Your task to perform on an android device: add a contact Image 0: 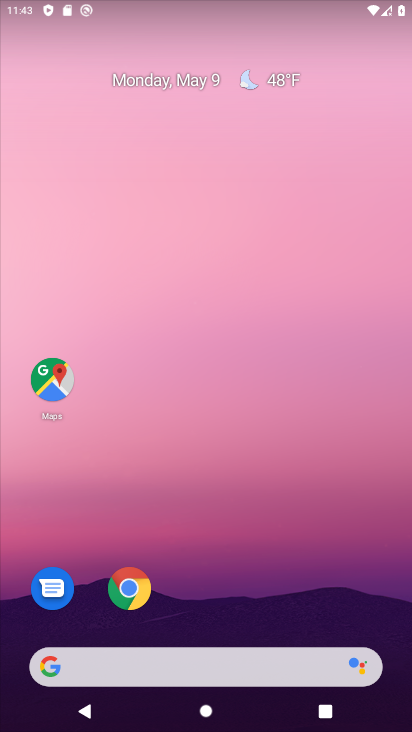
Step 0: drag from (206, 593) to (272, 296)
Your task to perform on an android device: add a contact Image 1: 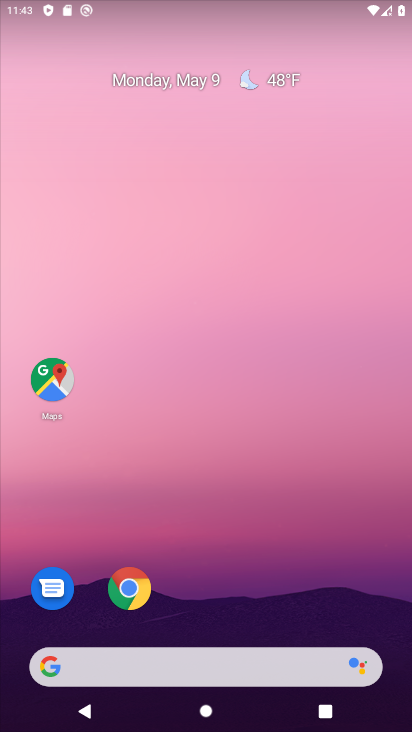
Step 1: drag from (224, 509) to (279, 228)
Your task to perform on an android device: add a contact Image 2: 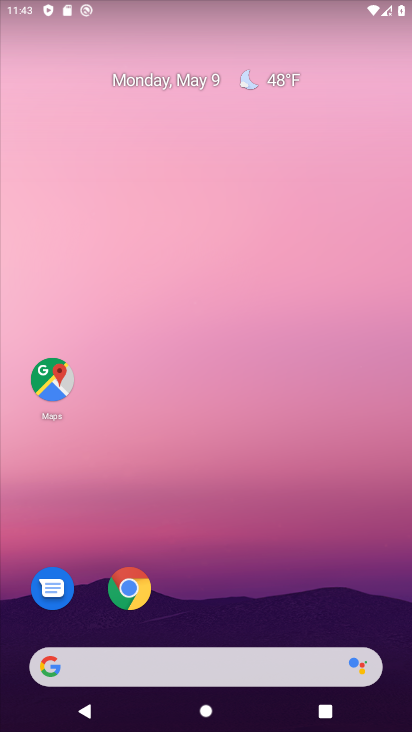
Step 2: drag from (245, 393) to (340, 4)
Your task to perform on an android device: add a contact Image 3: 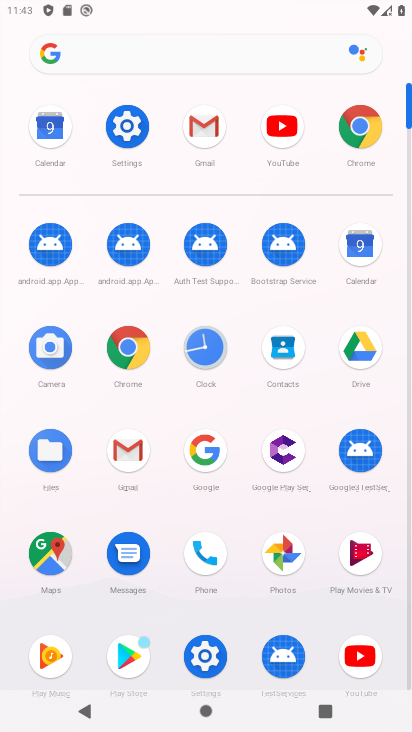
Step 3: click (204, 552)
Your task to perform on an android device: add a contact Image 4: 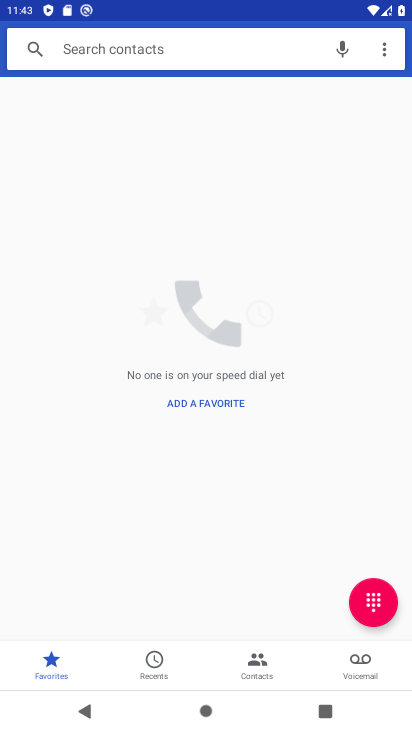
Step 4: click (208, 407)
Your task to perform on an android device: add a contact Image 5: 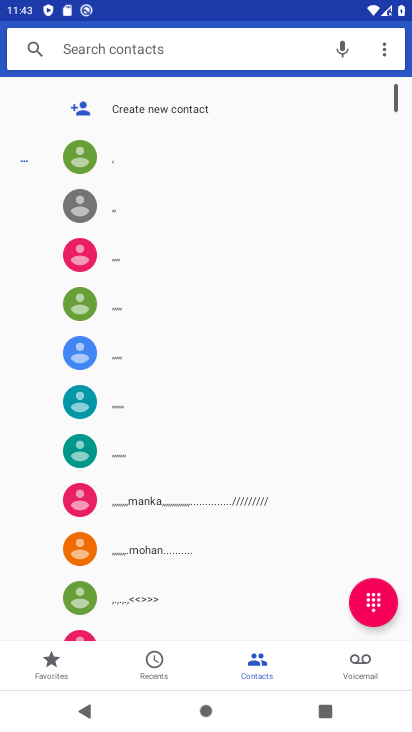
Step 5: click (176, 110)
Your task to perform on an android device: add a contact Image 6: 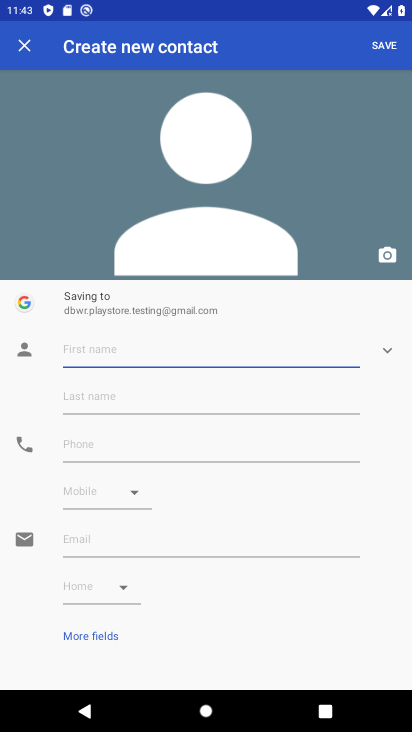
Step 6: click (224, 339)
Your task to perform on an android device: add a contact Image 7: 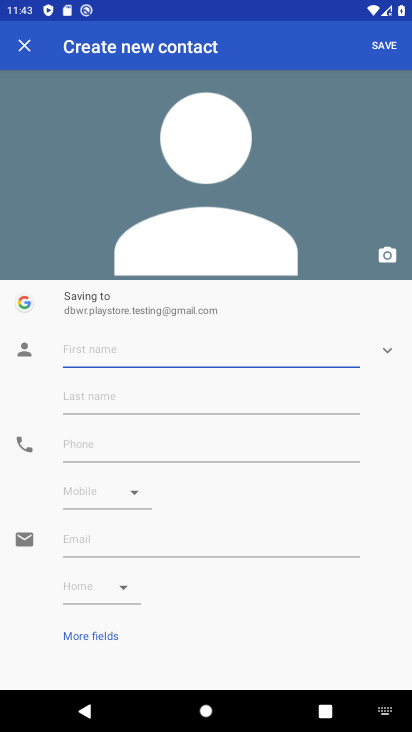
Step 7: type "gggggggggggggg"
Your task to perform on an android device: add a contact Image 8: 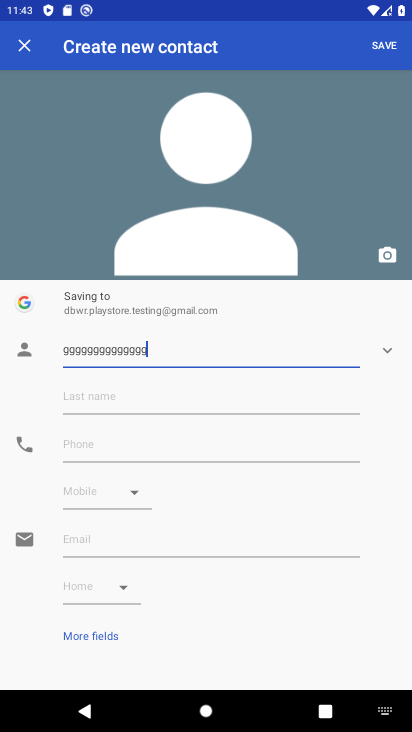
Step 8: click (265, 438)
Your task to perform on an android device: add a contact Image 9: 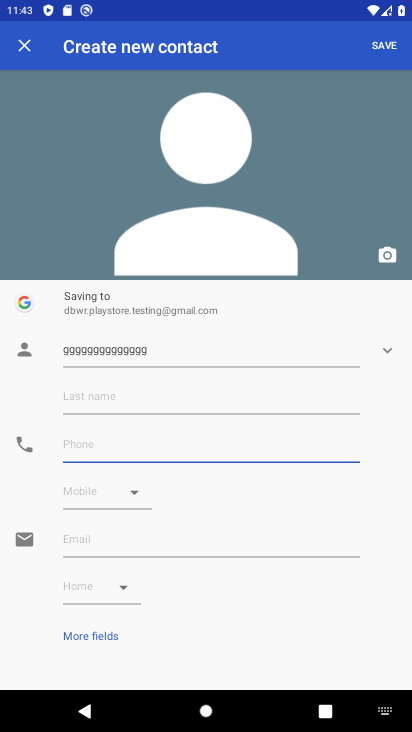
Step 9: type "33333333333333333333333"
Your task to perform on an android device: add a contact Image 10: 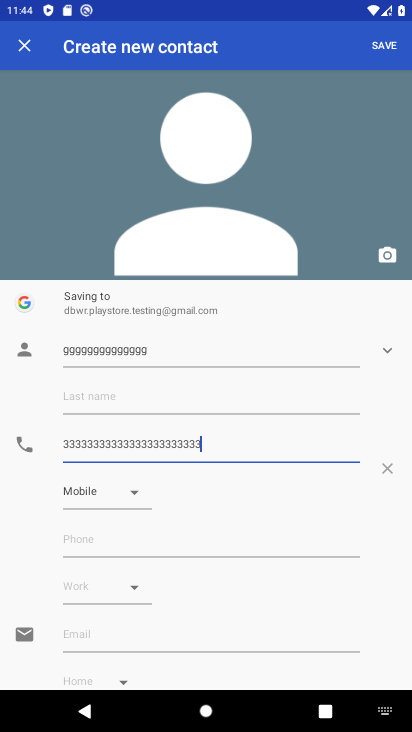
Step 10: click (384, 43)
Your task to perform on an android device: add a contact Image 11: 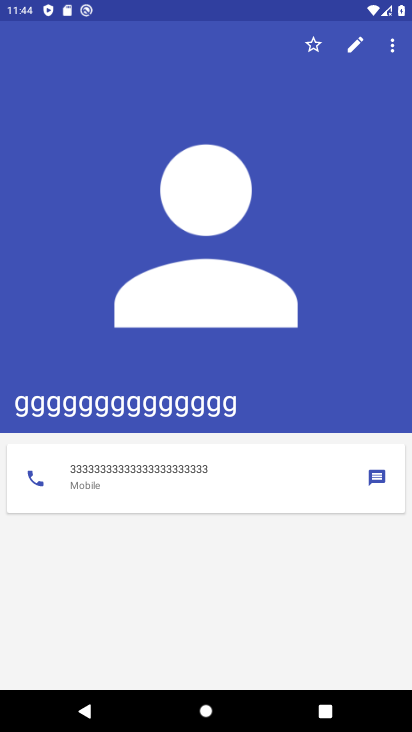
Step 11: task complete